Your task to perform on an android device: stop showing notifications on the lock screen Image 0: 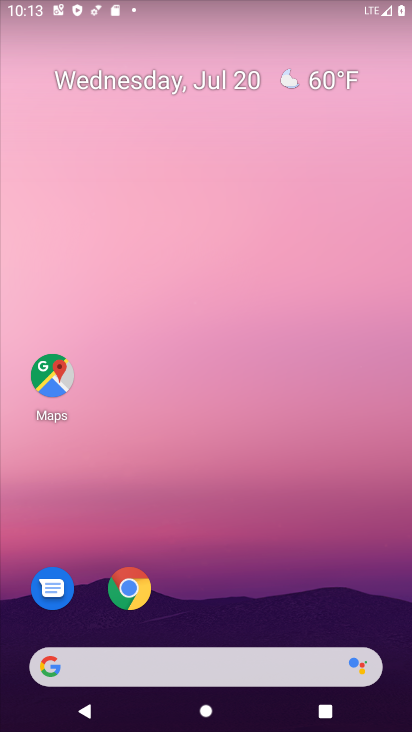
Step 0: drag from (240, 600) to (202, 19)
Your task to perform on an android device: stop showing notifications on the lock screen Image 1: 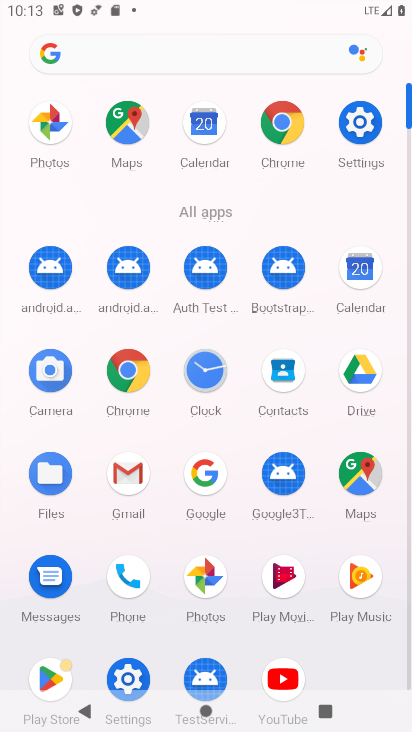
Step 1: click (365, 147)
Your task to perform on an android device: stop showing notifications on the lock screen Image 2: 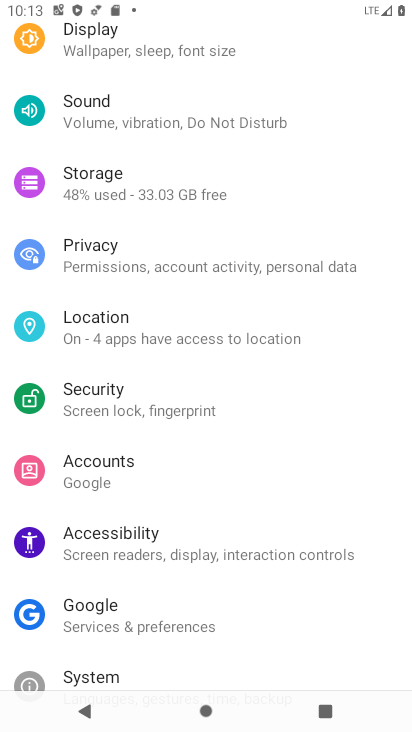
Step 2: drag from (156, 103) to (159, 571)
Your task to perform on an android device: stop showing notifications on the lock screen Image 3: 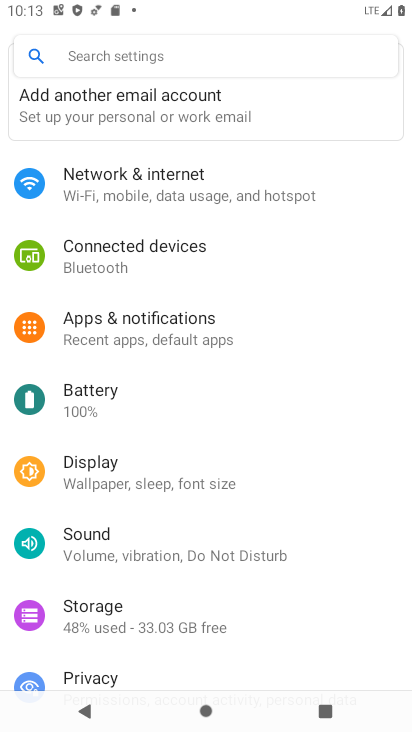
Step 3: click (161, 327)
Your task to perform on an android device: stop showing notifications on the lock screen Image 4: 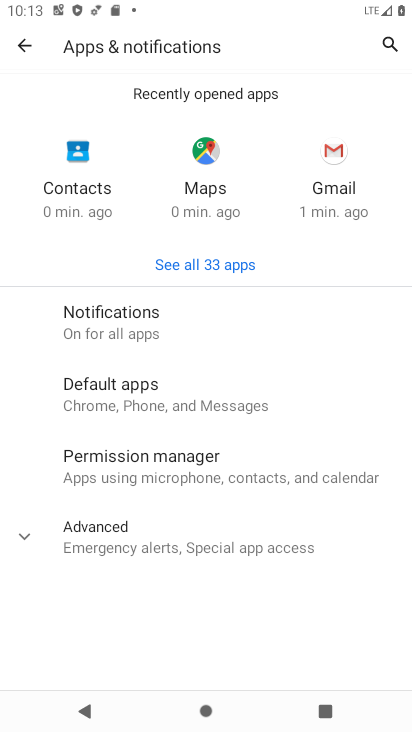
Step 4: click (130, 330)
Your task to perform on an android device: stop showing notifications on the lock screen Image 5: 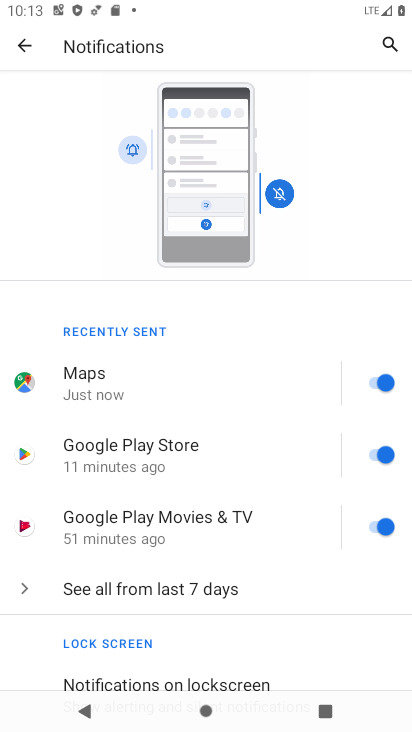
Step 5: drag from (125, 599) to (128, 408)
Your task to perform on an android device: stop showing notifications on the lock screen Image 6: 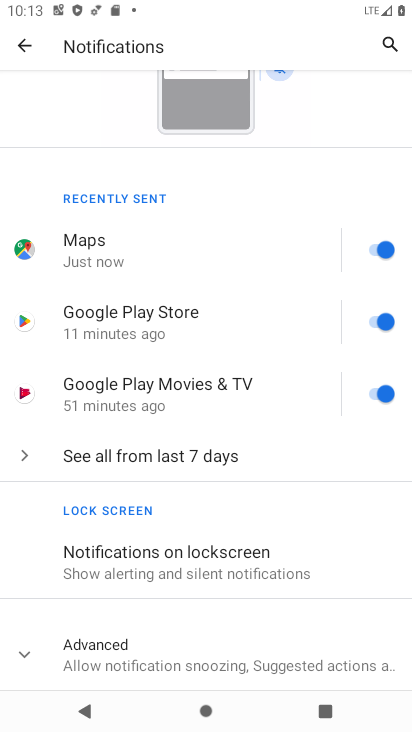
Step 6: click (135, 562)
Your task to perform on an android device: stop showing notifications on the lock screen Image 7: 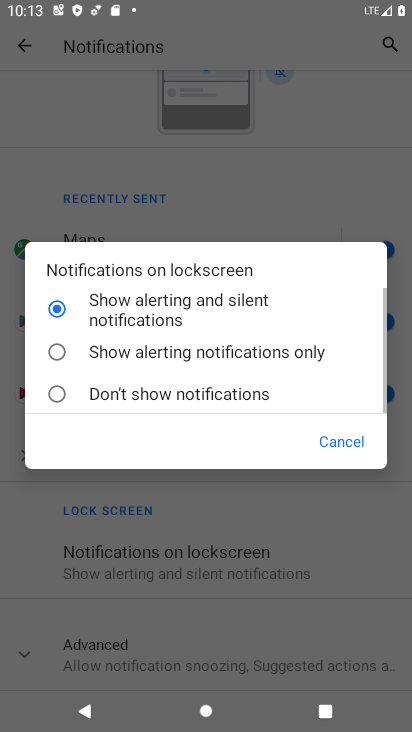
Step 7: click (90, 393)
Your task to perform on an android device: stop showing notifications on the lock screen Image 8: 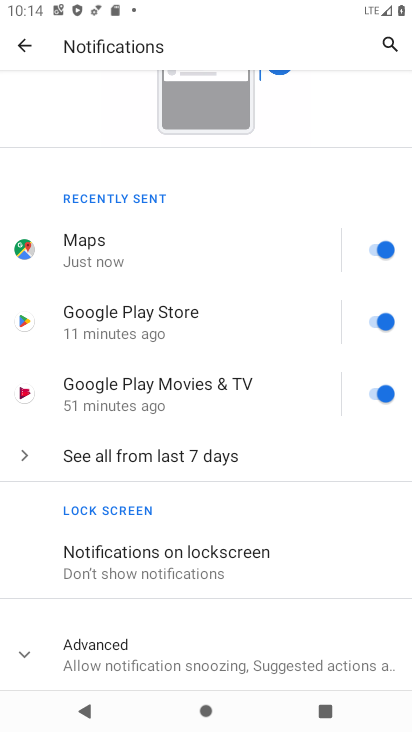
Step 8: task complete